Your task to perform on an android device: Go to sound settings Image 0: 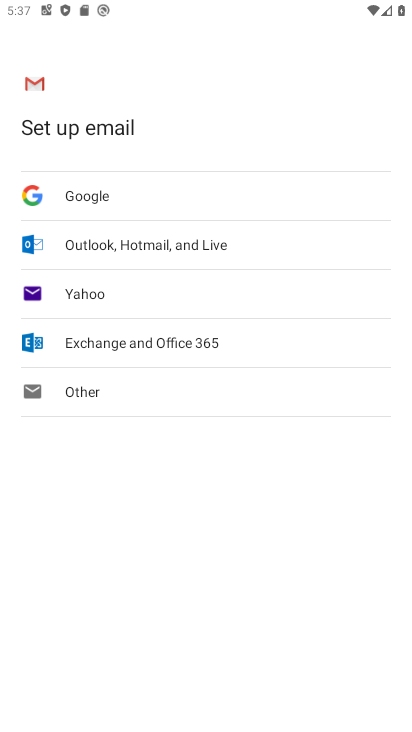
Step 0: press home button
Your task to perform on an android device: Go to sound settings Image 1: 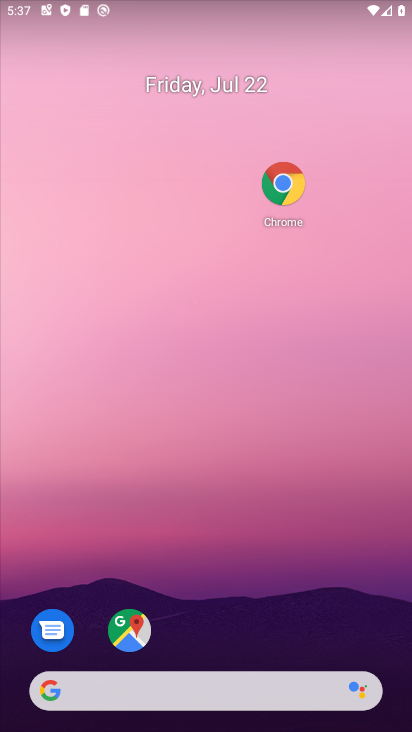
Step 1: drag from (201, 546) to (194, 192)
Your task to perform on an android device: Go to sound settings Image 2: 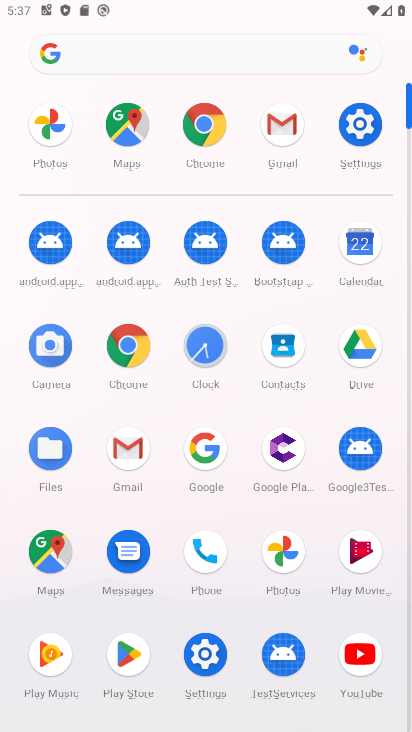
Step 2: click (360, 117)
Your task to perform on an android device: Go to sound settings Image 3: 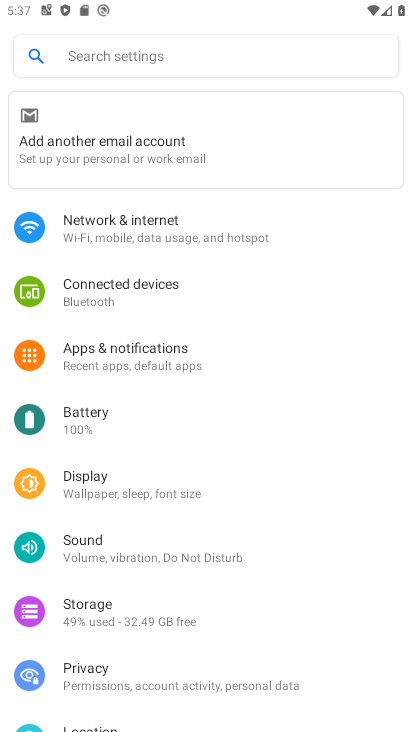
Step 3: click (85, 545)
Your task to perform on an android device: Go to sound settings Image 4: 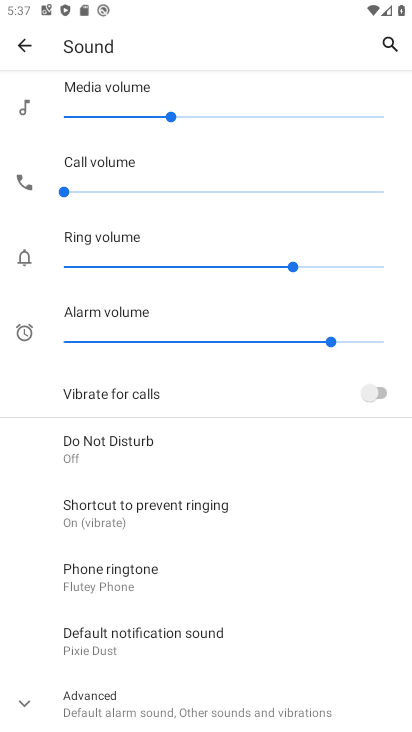
Step 4: task complete